Your task to perform on an android device: Open calendar and show me the fourth week of next month Image 0: 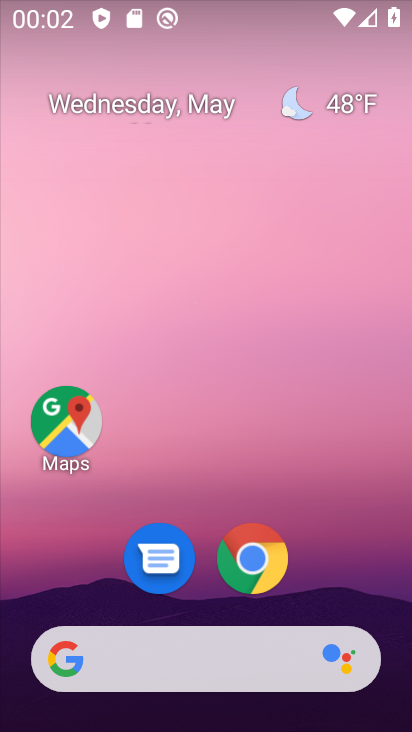
Step 0: drag from (399, 561) to (375, 134)
Your task to perform on an android device: Open calendar and show me the fourth week of next month Image 1: 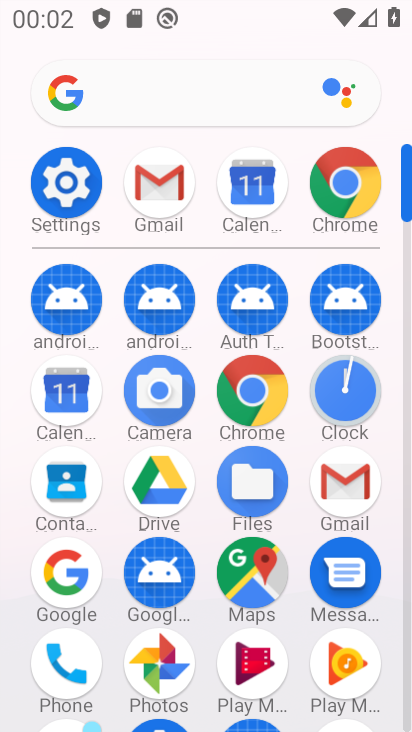
Step 1: click (61, 411)
Your task to perform on an android device: Open calendar and show me the fourth week of next month Image 2: 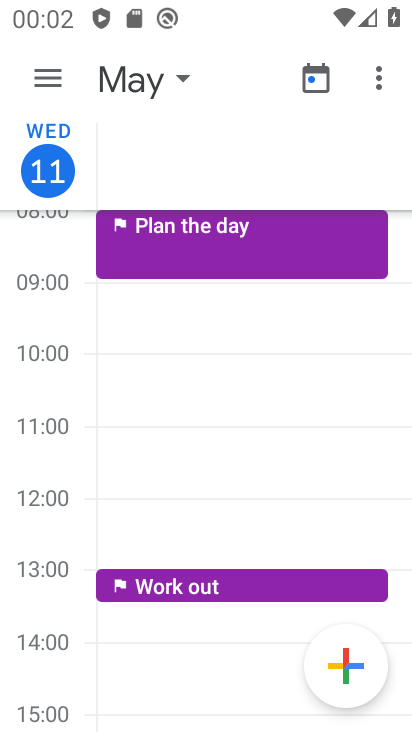
Step 2: click (144, 80)
Your task to perform on an android device: Open calendar and show me the fourth week of next month Image 3: 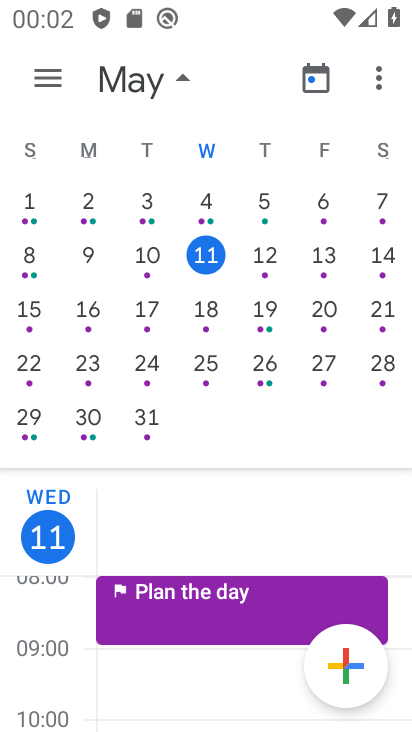
Step 3: drag from (272, 291) to (3, 294)
Your task to perform on an android device: Open calendar and show me the fourth week of next month Image 4: 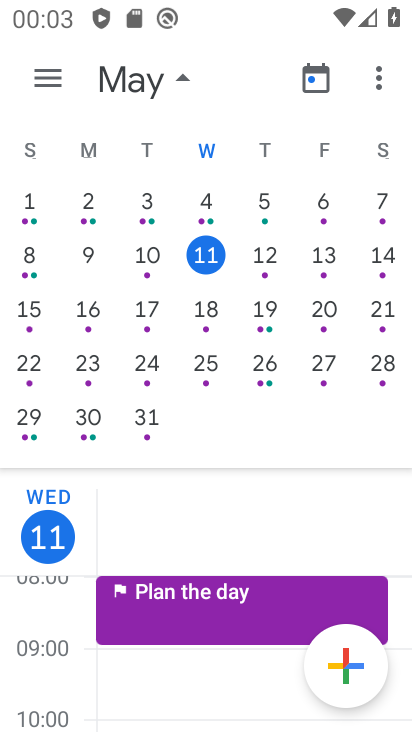
Step 4: drag from (366, 296) to (29, 292)
Your task to perform on an android device: Open calendar and show me the fourth week of next month Image 5: 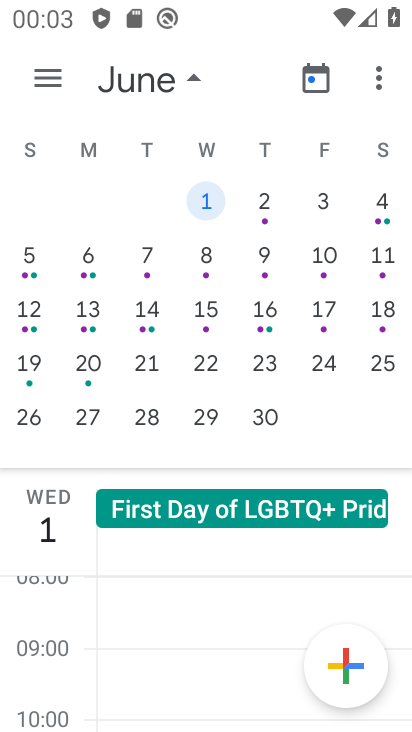
Step 5: click (26, 374)
Your task to perform on an android device: Open calendar and show me the fourth week of next month Image 6: 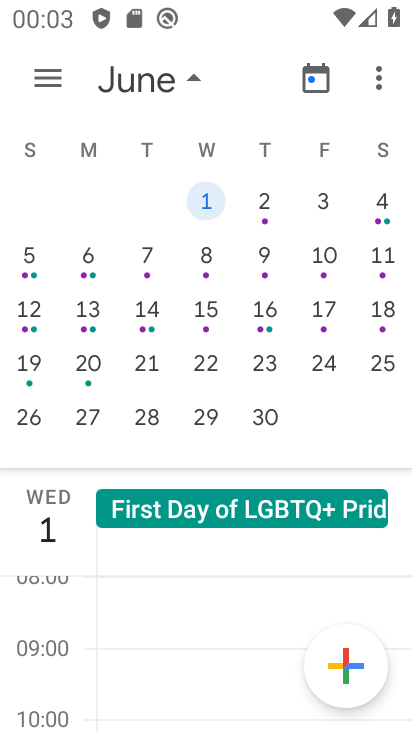
Step 6: click (30, 362)
Your task to perform on an android device: Open calendar and show me the fourth week of next month Image 7: 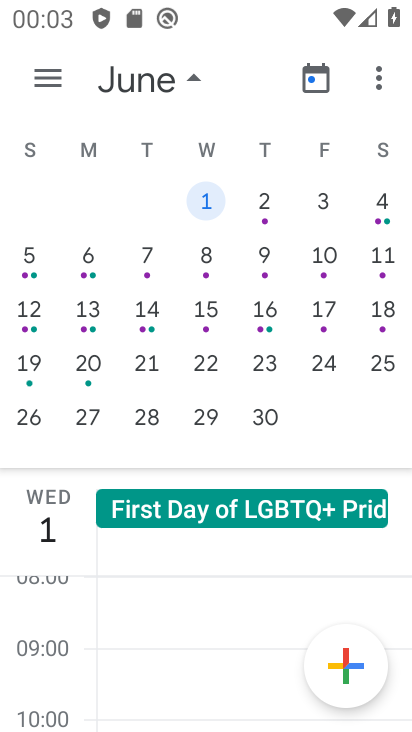
Step 7: click (46, 369)
Your task to perform on an android device: Open calendar and show me the fourth week of next month Image 8: 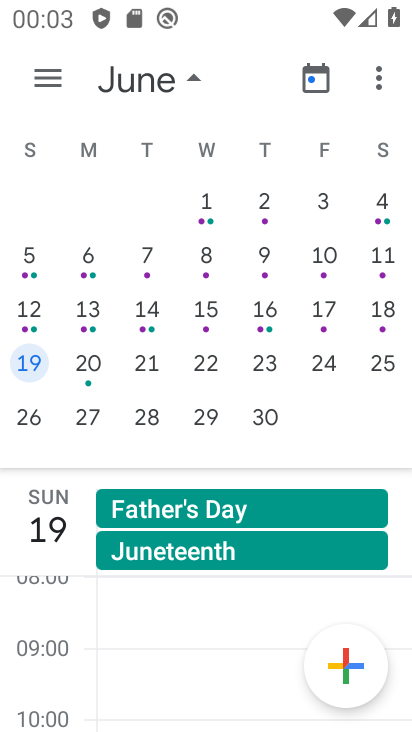
Step 8: task complete